Your task to perform on an android device: turn notification dots off Image 0: 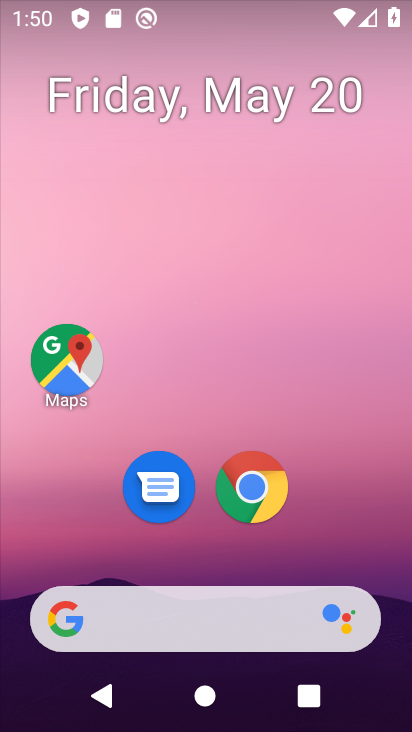
Step 0: drag from (352, 404) to (386, 83)
Your task to perform on an android device: turn notification dots off Image 1: 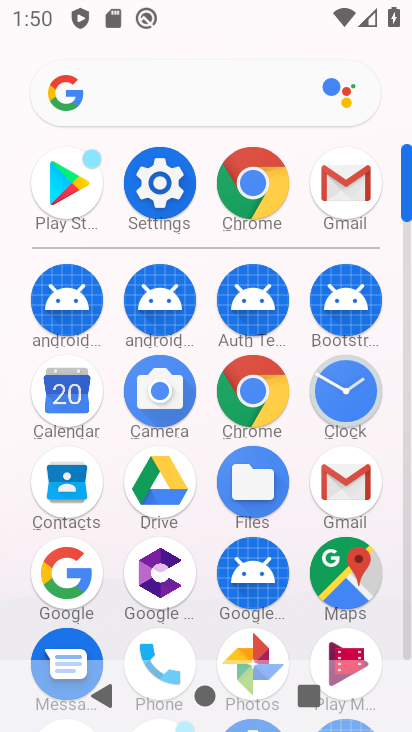
Step 1: click (153, 201)
Your task to perform on an android device: turn notification dots off Image 2: 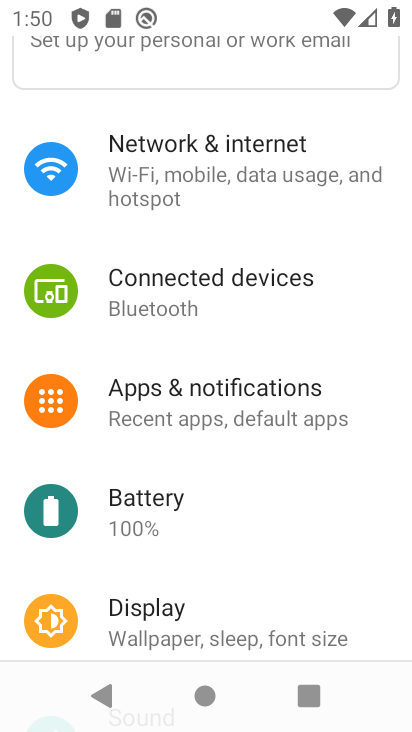
Step 2: click (233, 405)
Your task to perform on an android device: turn notification dots off Image 3: 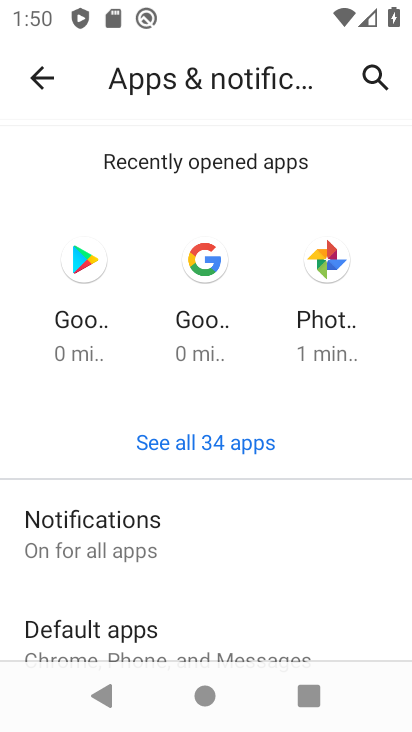
Step 3: click (123, 545)
Your task to perform on an android device: turn notification dots off Image 4: 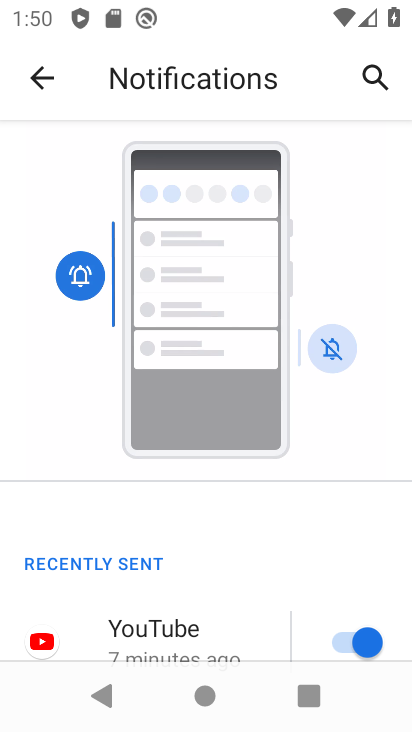
Step 4: drag from (86, 607) to (154, 184)
Your task to perform on an android device: turn notification dots off Image 5: 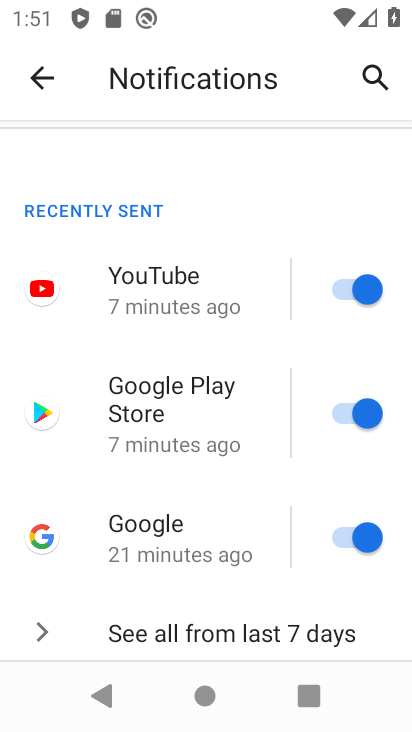
Step 5: drag from (103, 577) to (175, 225)
Your task to perform on an android device: turn notification dots off Image 6: 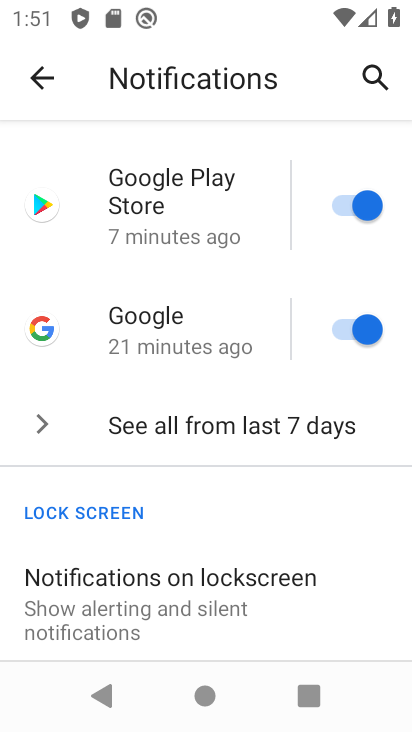
Step 6: drag from (235, 514) to (321, 171)
Your task to perform on an android device: turn notification dots off Image 7: 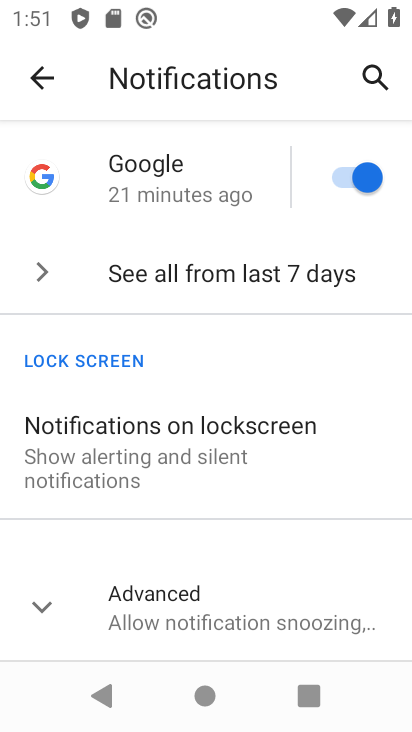
Step 7: click (219, 627)
Your task to perform on an android device: turn notification dots off Image 8: 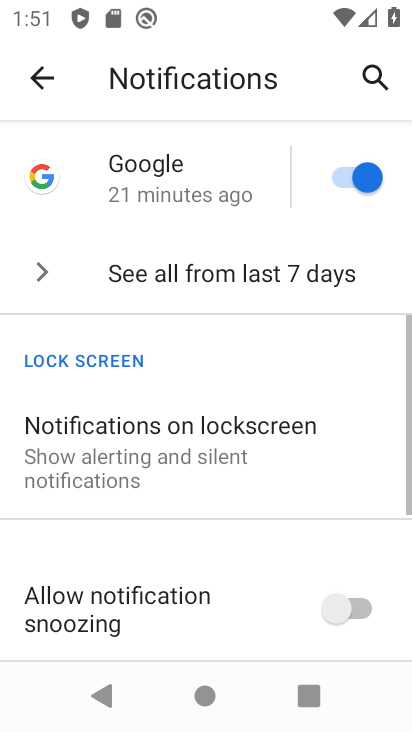
Step 8: drag from (228, 593) to (303, 231)
Your task to perform on an android device: turn notification dots off Image 9: 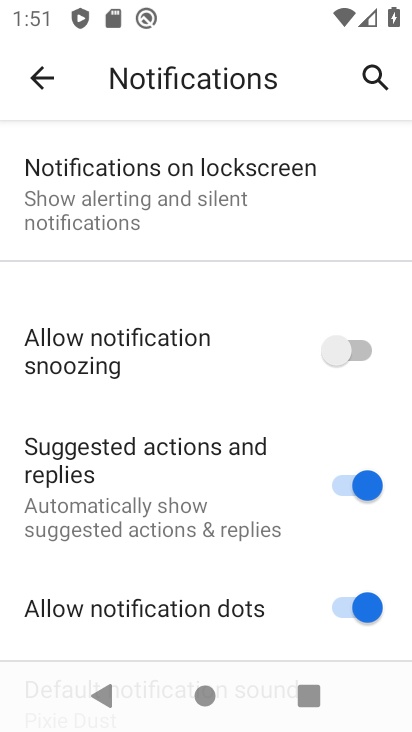
Step 9: click (362, 605)
Your task to perform on an android device: turn notification dots off Image 10: 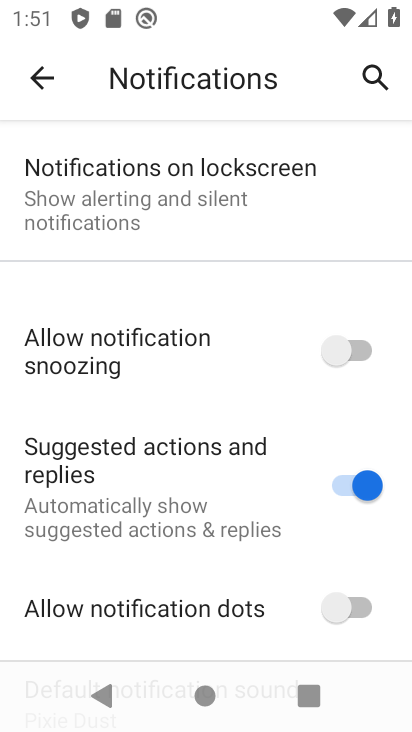
Step 10: task complete